Your task to perform on an android device: View the shopping cart on bestbuy.com. Add "panasonic triple a" to the cart on bestbuy.com, then select checkout. Image 0: 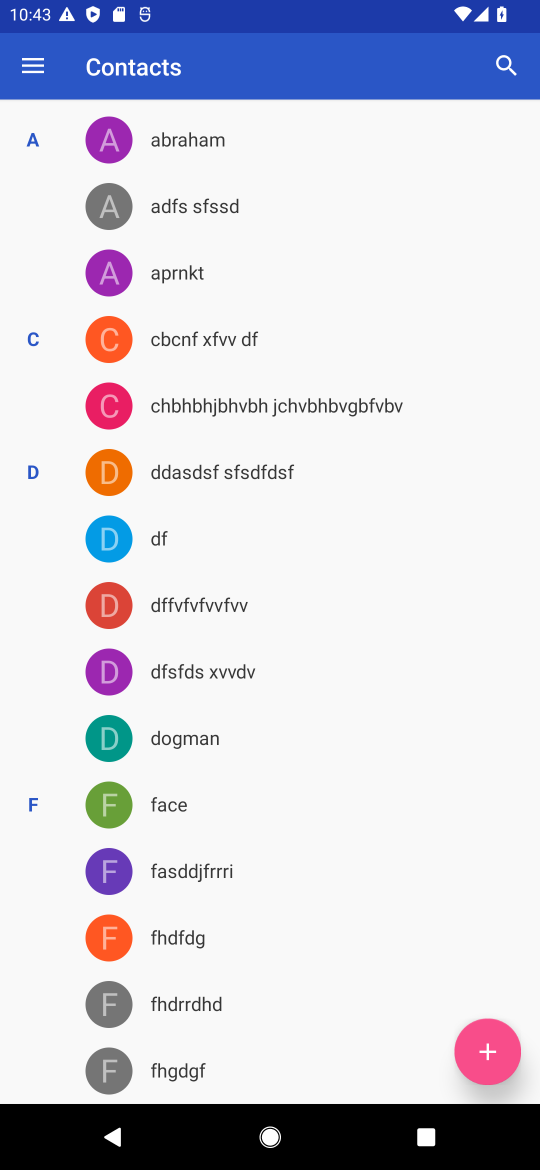
Step 0: press home button
Your task to perform on an android device: View the shopping cart on bestbuy.com. Add "panasonic triple a" to the cart on bestbuy.com, then select checkout. Image 1: 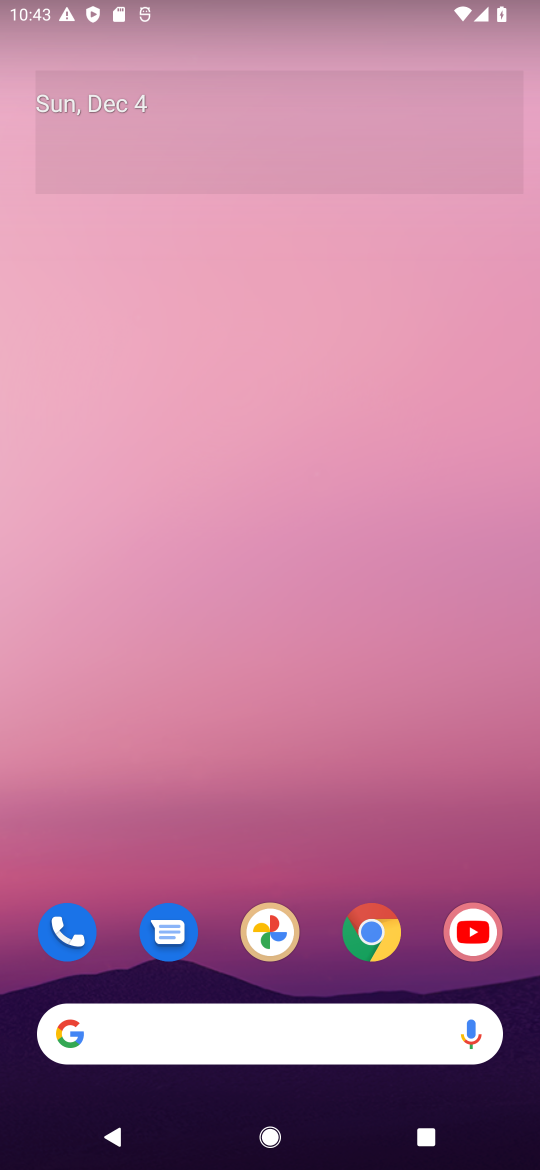
Step 1: click (376, 945)
Your task to perform on an android device: View the shopping cart on bestbuy.com. Add "panasonic triple a" to the cart on bestbuy.com, then select checkout. Image 2: 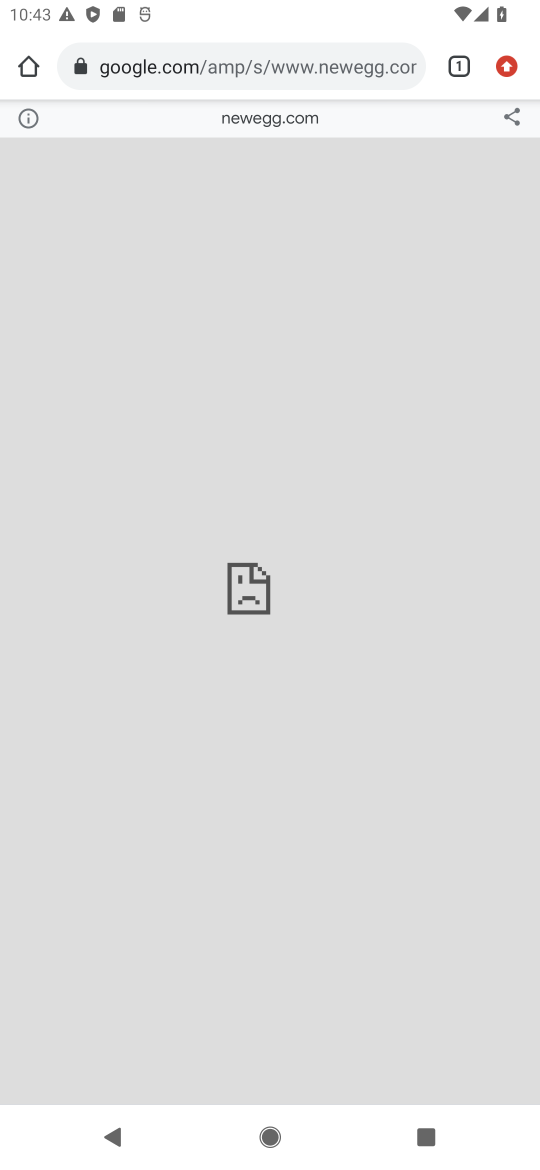
Step 2: click (241, 70)
Your task to perform on an android device: View the shopping cart on bestbuy.com. Add "panasonic triple a" to the cart on bestbuy.com, then select checkout. Image 3: 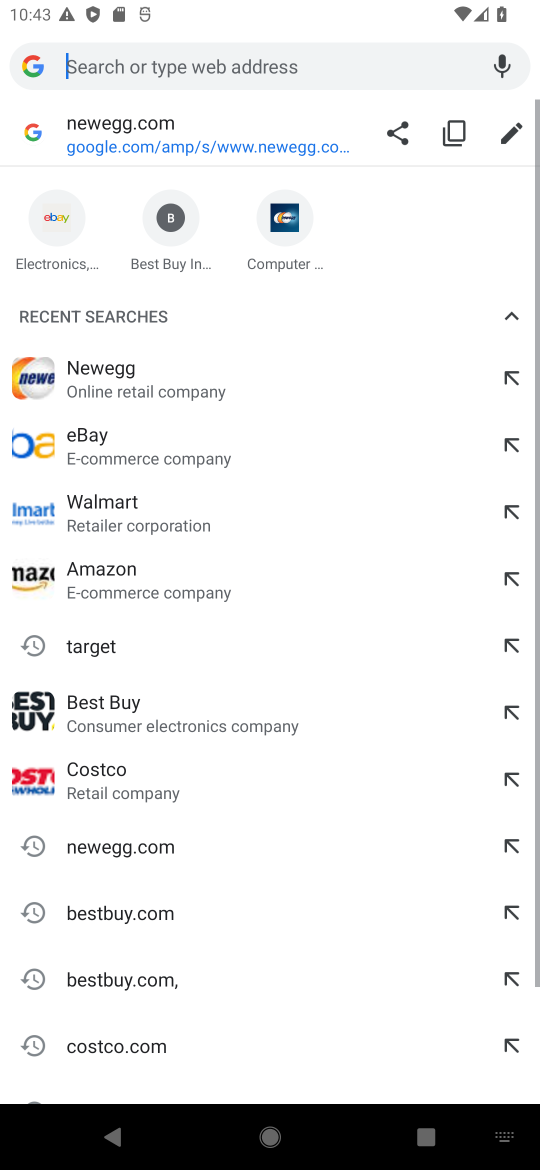
Step 3: click (167, 221)
Your task to perform on an android device: View the shopping cart on bestbuy.com. Add "panasonic triple a" to the cart on bestbuy.com, then select checkout. Image 4: 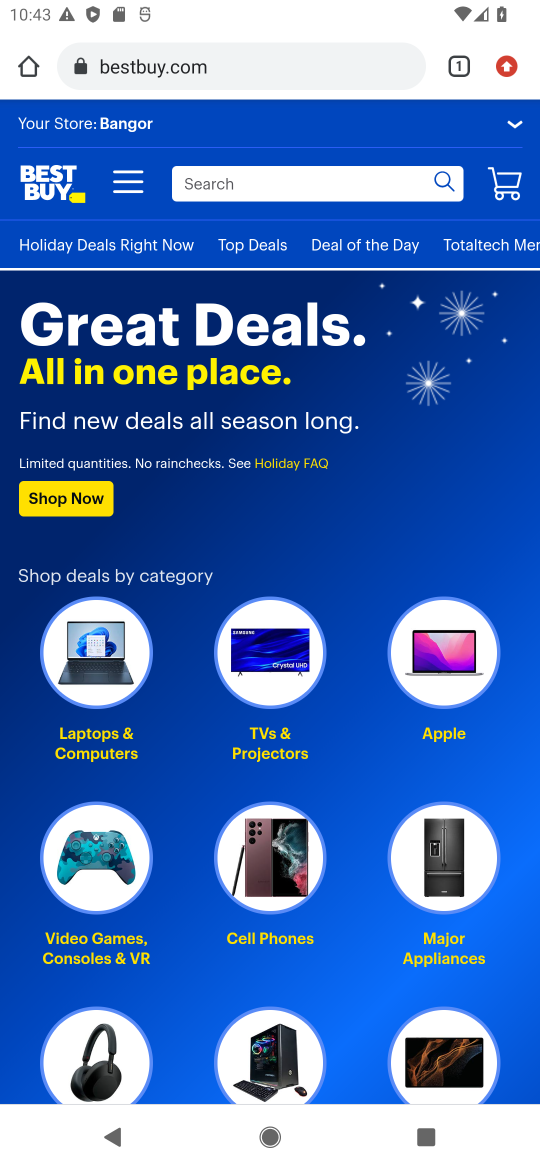
Step 4: click (330, 183)
Your task to perform on an android device: View the shopping cart on bestbuy.com. Add "panasonic triple a" to the cart on bestbuy.com, then select checkout. Image 5: 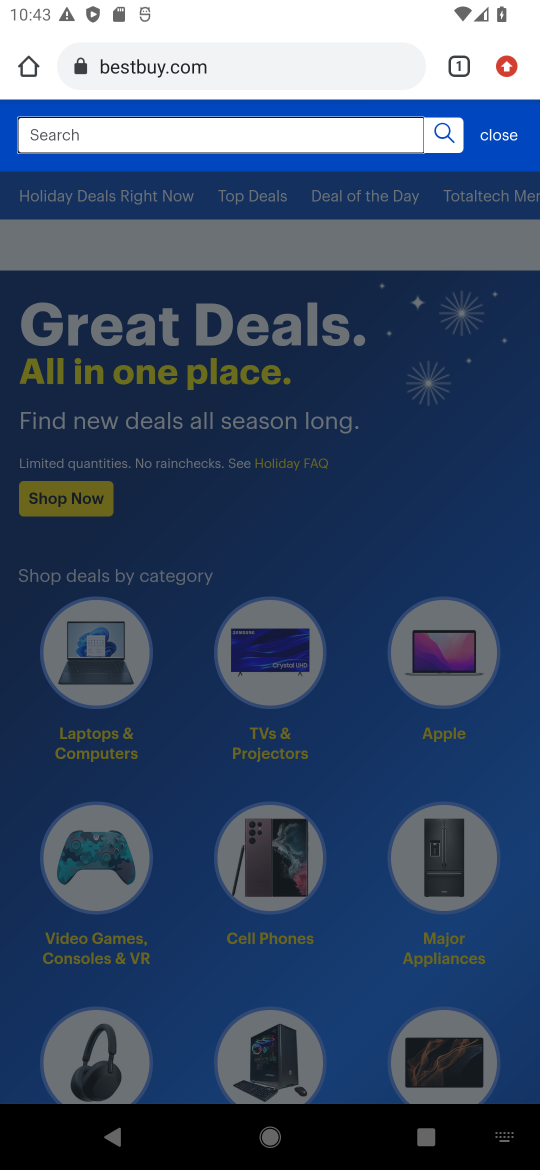
Step 5: type "panasonic triple a"
Your task to perform on an android device: View the shopping cart on bestbuy.com. Add "panasonic triple a" to the cart on bestbuy.com, then select checkout. Image 6: 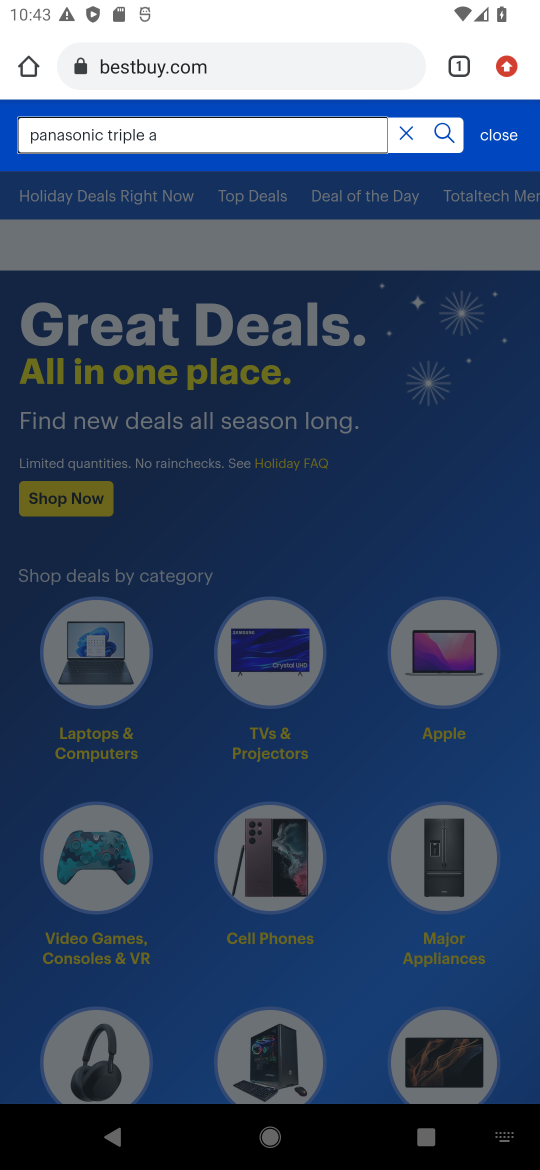
Step 6: click (440, 132)
Your task to perform on an android device: View the shopping cart on bestbuy.com. Add "panasonic triple a" to the cart on bestbuy.com, then select checkout. Image 7: 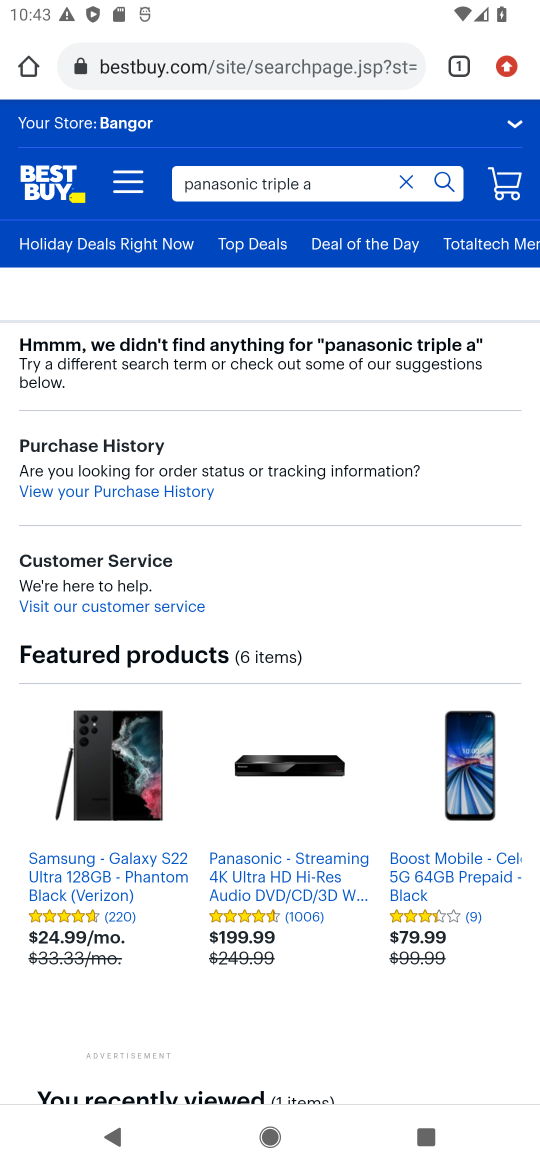
Step 7: task complete